Your task to perform on an android device: turn off javascript in the chrome app Image 0: 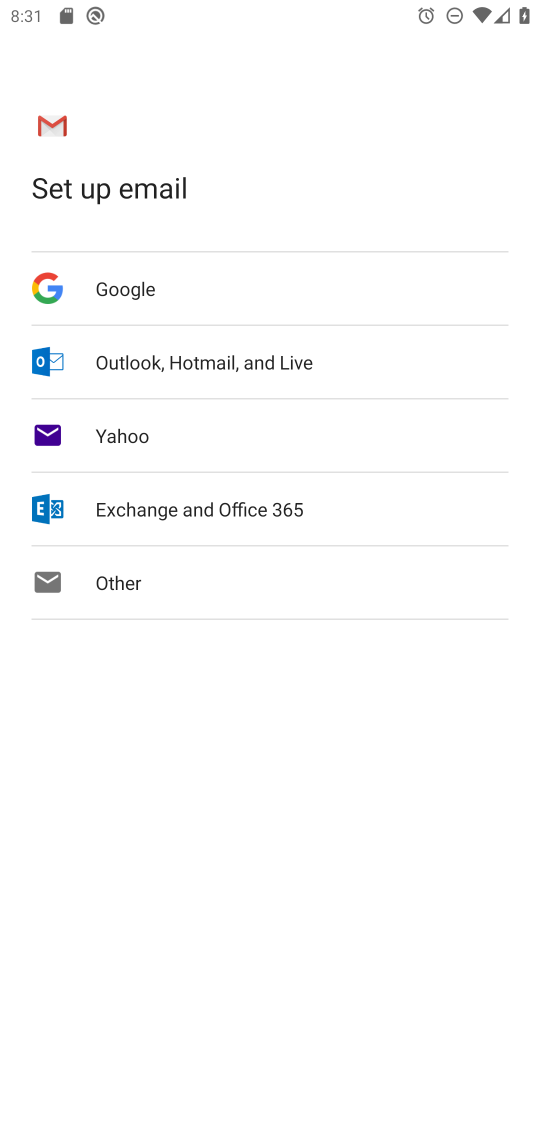
Step 0: press home button
Your task to perform on an android device: turn off javascript in the chrome app Image 1: 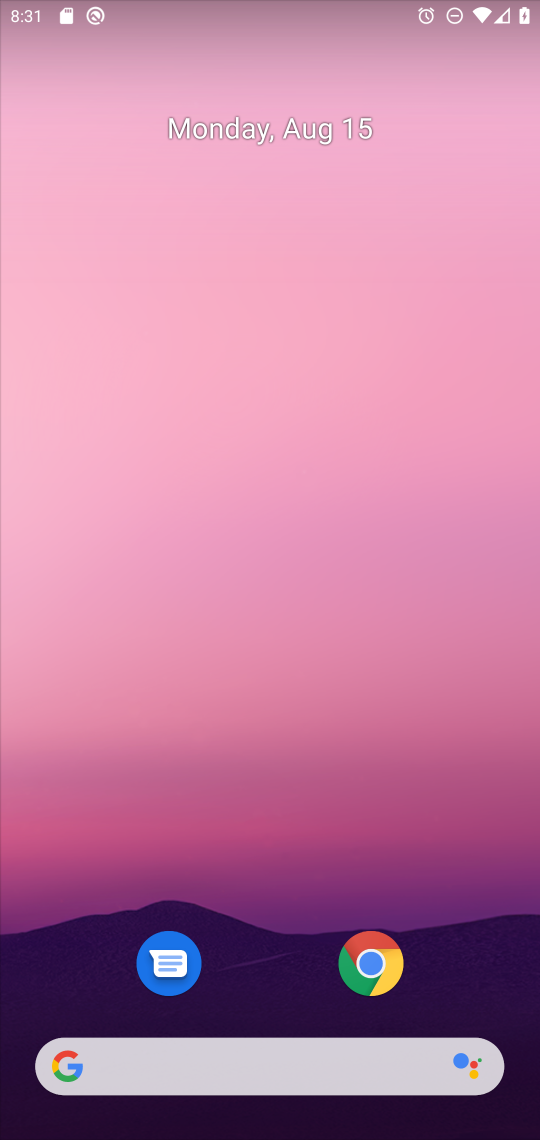
Step 1: click (378, 944)
Your task to perform on an android device: turn off javascript in the chrome app Image 2: 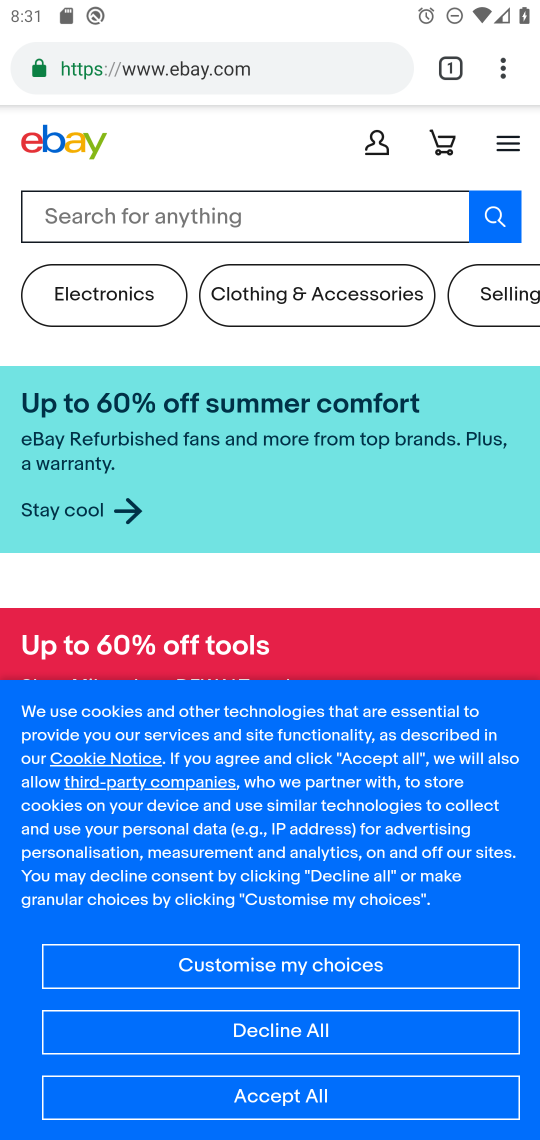
Step 2: click (519, 78)
Your task to perform on an android device: turn off javascript in the chrome app Image 3: 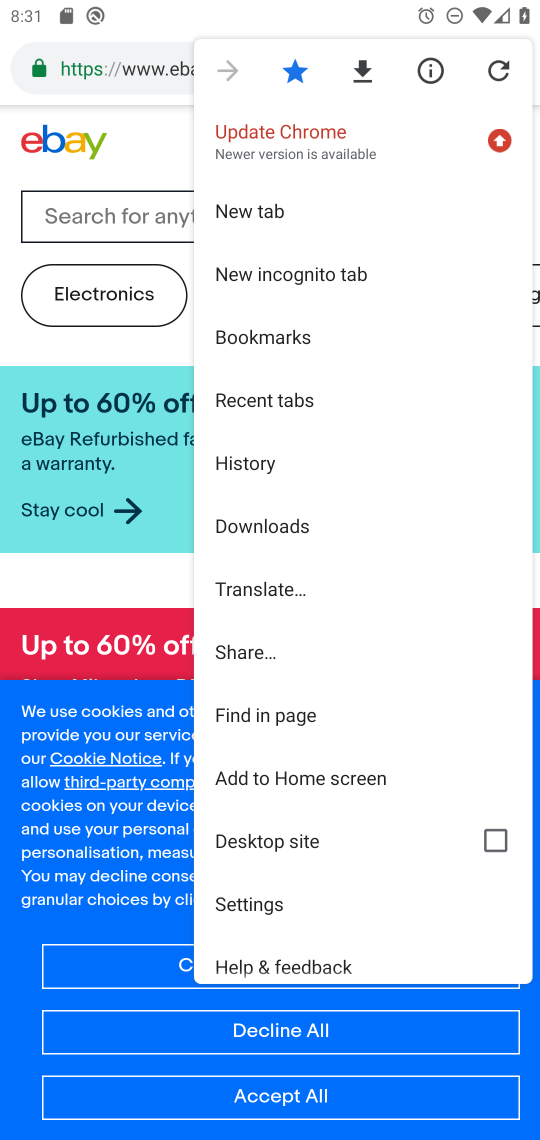
Step 3: click (279, 913)
Your task to perform on an android device: turn off javascript in the chrome app Image 4: 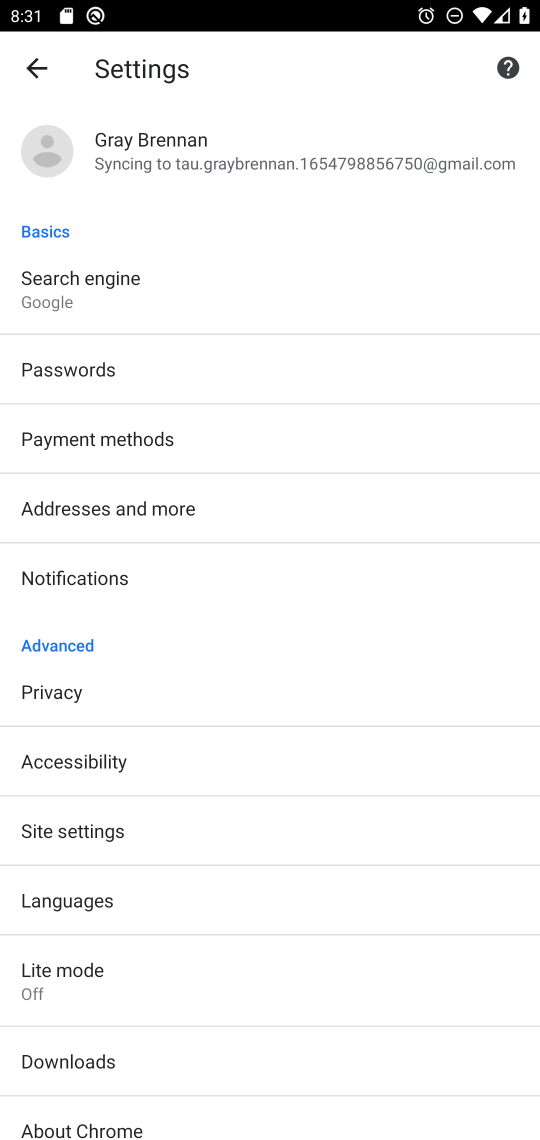
Step 4: click (101, 824)
Your task to perform on an android device: turn off javascript in the chrome app Image 5: 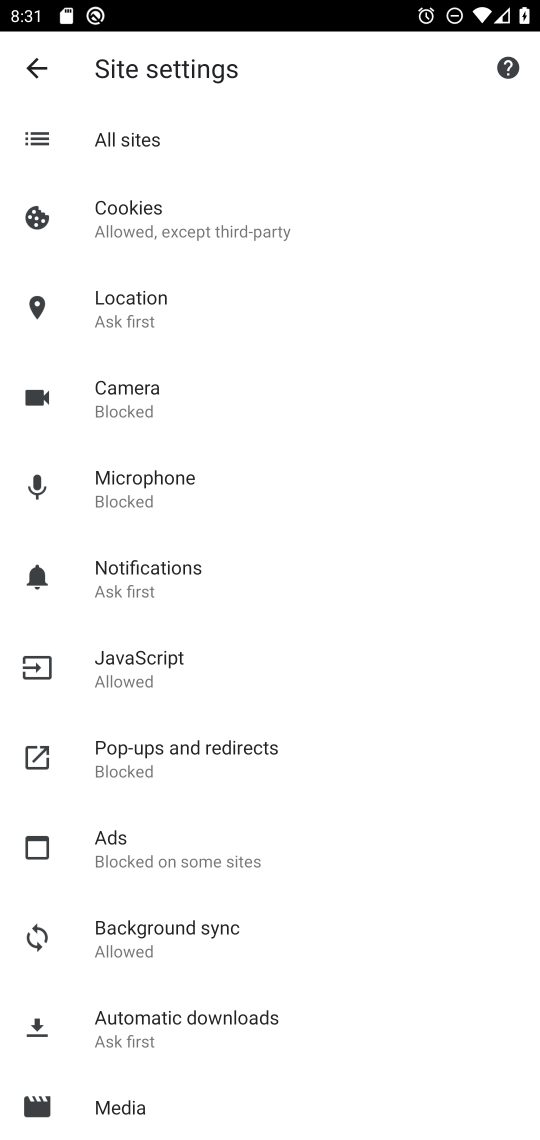
Step 5: click (132, 686)
Your task to perform on an android device: turn off javascript in the chrome app Image 6: 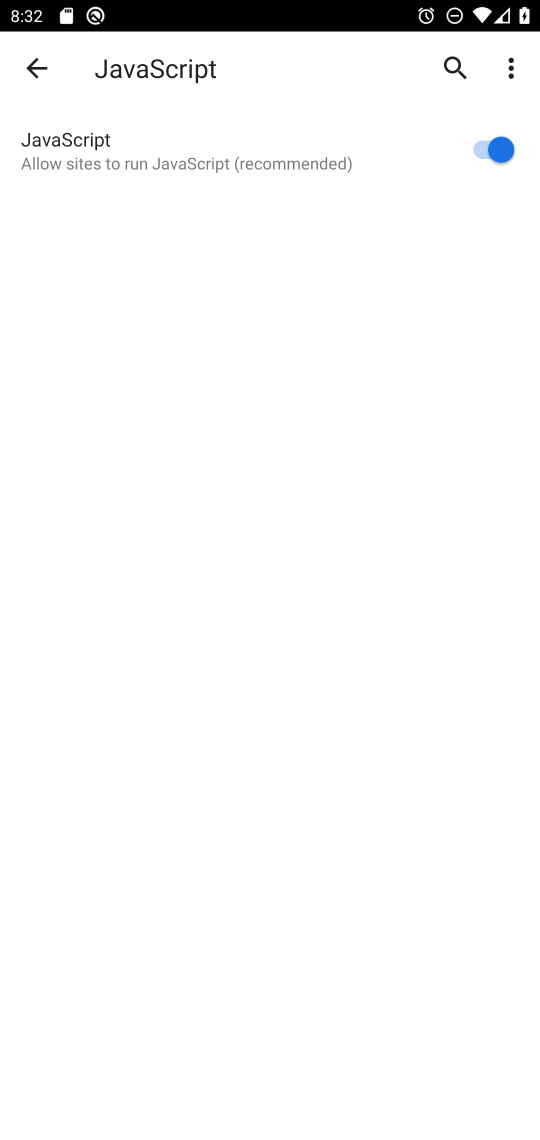
Step 6: click (489, 159)
Your task to perform on an android device: turn off javascript in the chrome app Image 7: 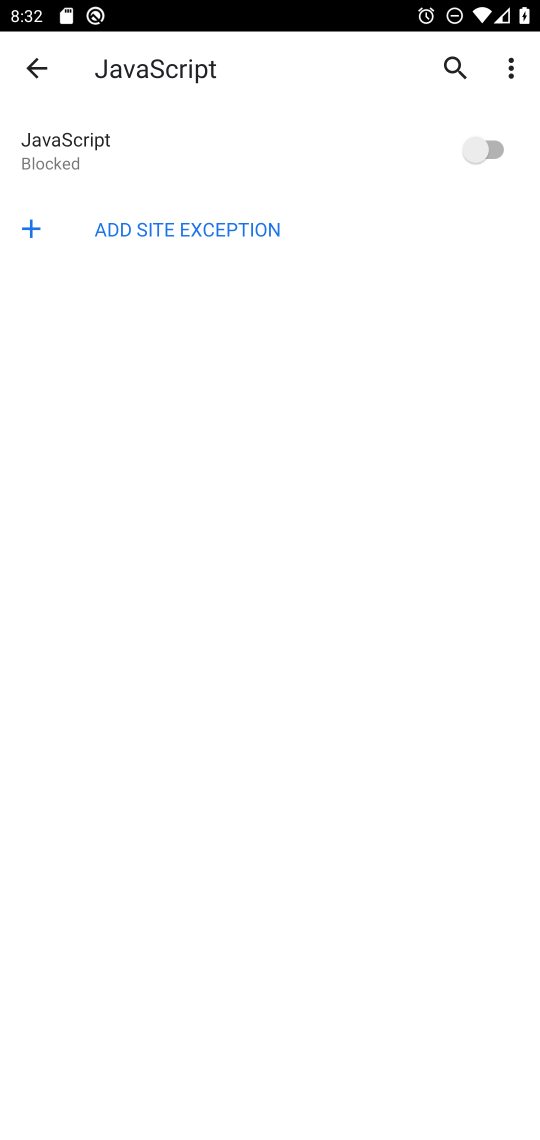
Step 7: task complete